Your task to perform on an android device: all mails in gmail Image 0: 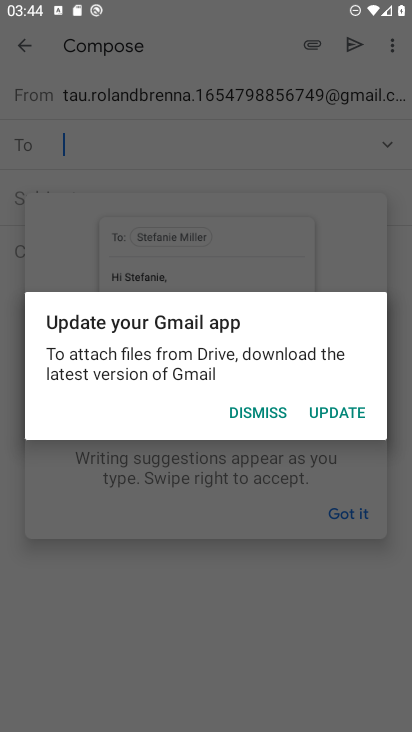
Step 0: press home button
Your task to perform on an android device: all mails in gmail Image 1: 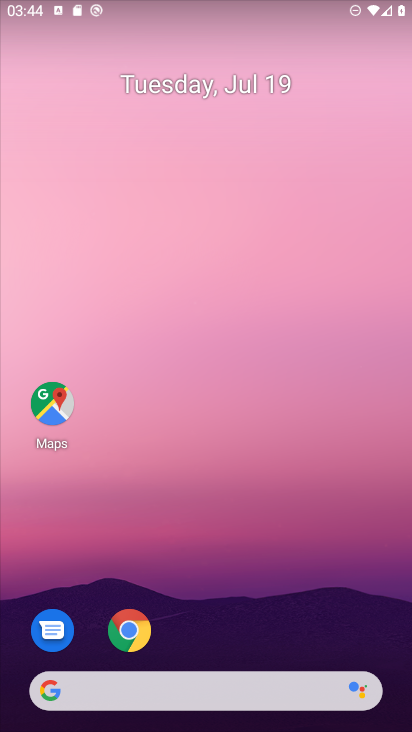
Step 1: drag from (368, 644) to (348, 221)
Your task to perform on an android device: all mails in gmail Image 2: 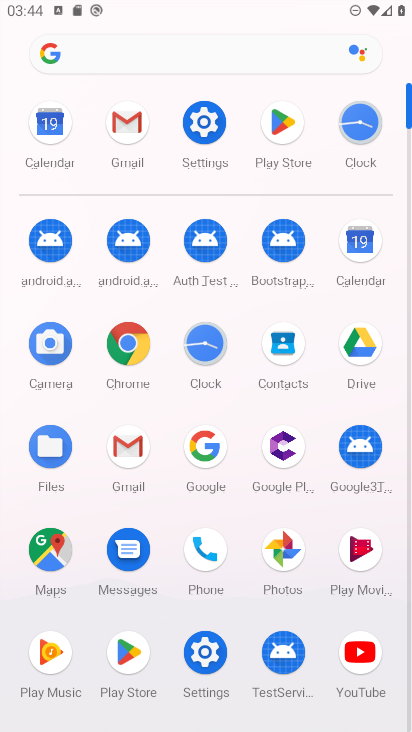
Step 2: click (128, 446)
Your task to perform on an android device: all mails in gmail Image 3: 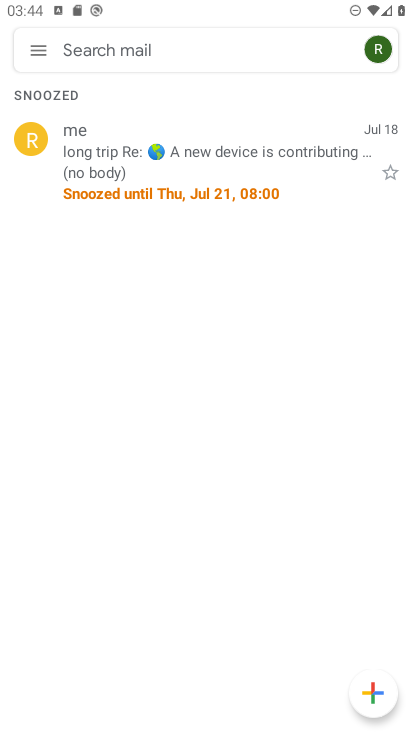
Step 3: click (39, 52)
Your task to perform on an android device: all mails in gmail Image 4: 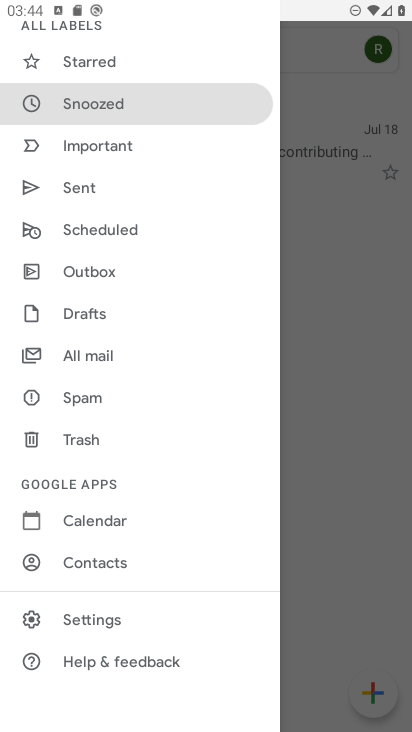
Step 4: click (83, 353)
Your task to perform on an android device: all mails in gmail Image 5: 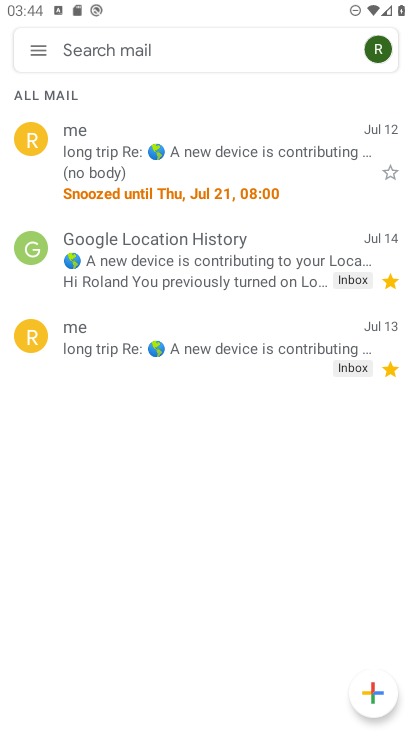
Step 5: task complete